Your task to perform on an android device: Go to display settings Image 0: 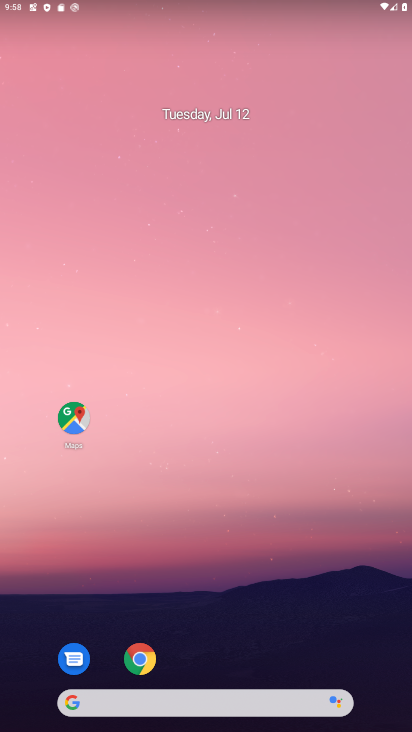
Step 0: drag from (383, 526) to (371, 264)
Your task to perform on an android device: Go to display settings Image 1: 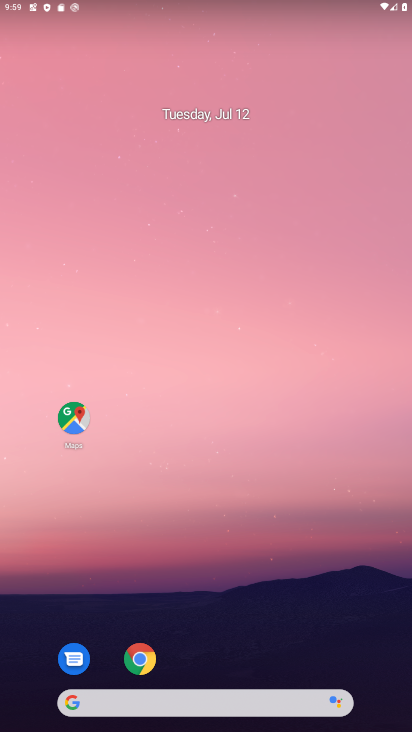
Step 1: drag from (374, 703) to (324, 197)
Your task to perform on an android device: Go to display settings Image 2: 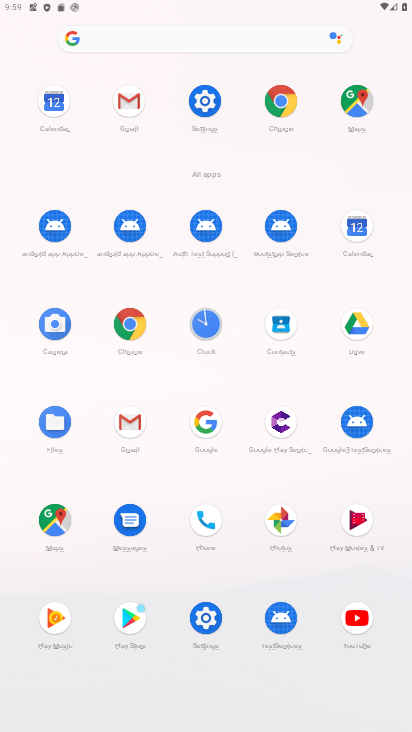
Step 2: click (206, 108)
Your task to perform on an android device: Go to display settings Image 3: 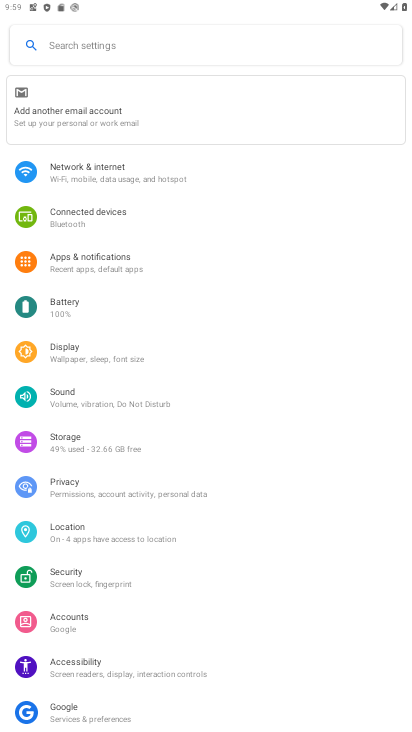
Step 3: click (58, 349)
Your task to perform on an android device: Go to display settings Image 4: 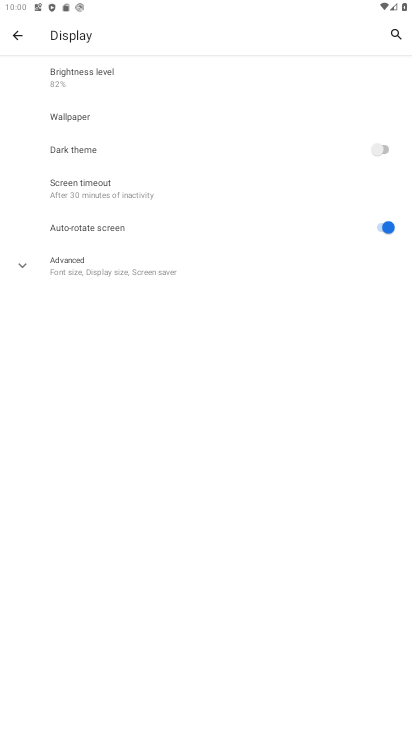
Step 4: task complete